Your task to perform on an android device: change alarm snooze length Image 0: 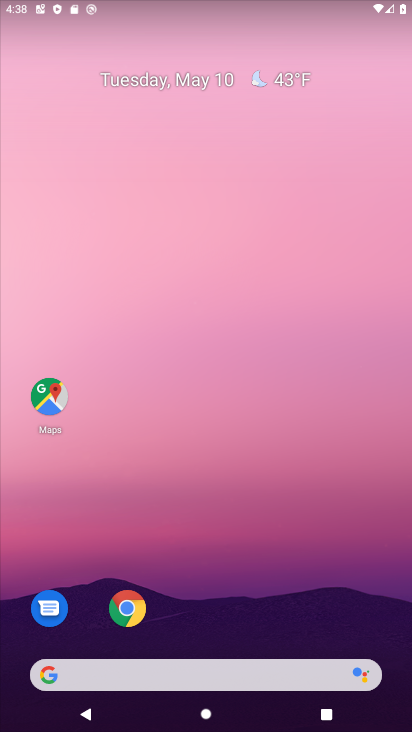
Step 0: drag from (297, 559) to (363, 50)
Your task to perform on an android device: change alarm snooze length Image 1: 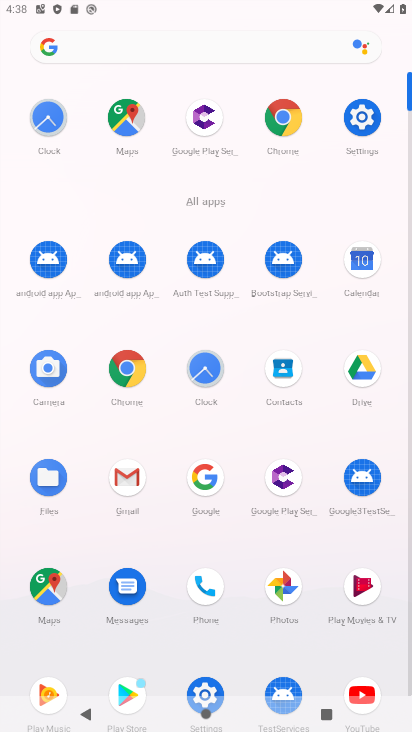
Step 1: click (204, 374)
Your task to perform on an android device: change alarm snooze length Image 2: 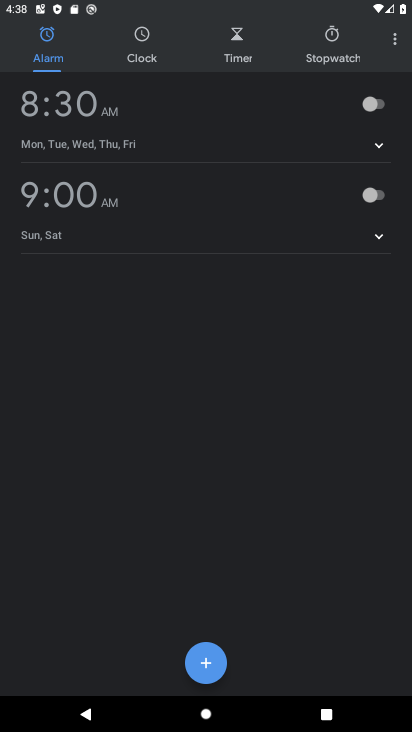
Step 2: click (404, 30)
Your task to perform on an android device: change alarm snooze length Image 3: 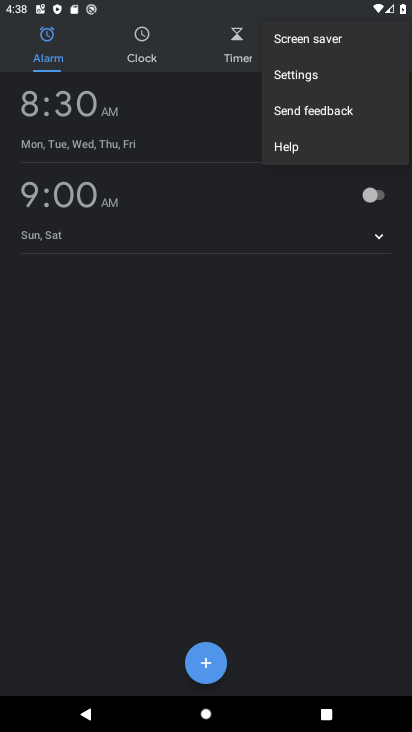
Step 3: click (303, 76)
Your task to perform on an android device: change alarm snooze length Image 4: 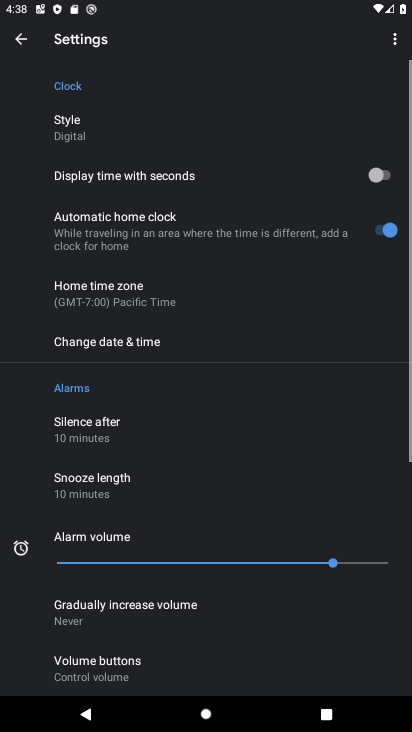
Step 4: drag from (152, 637) to (246, 163)
Your task to perform on an android device: change alarm snooze length Image 5: 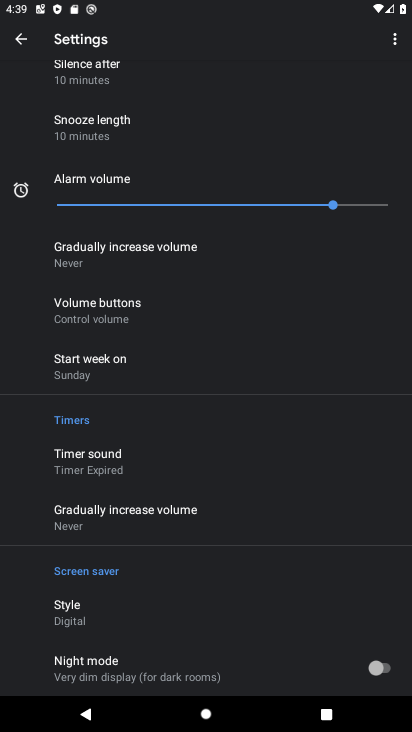
Step 5: click (85, 133)
Your task to perform on an android device: change alarm snooze length Image 6: 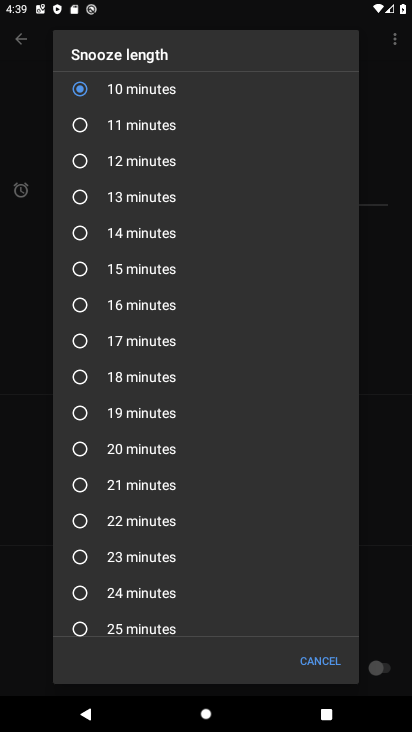
Step 6: click (109, 127)
Your task to perform on an android device: change alarm snooze length Image 7: 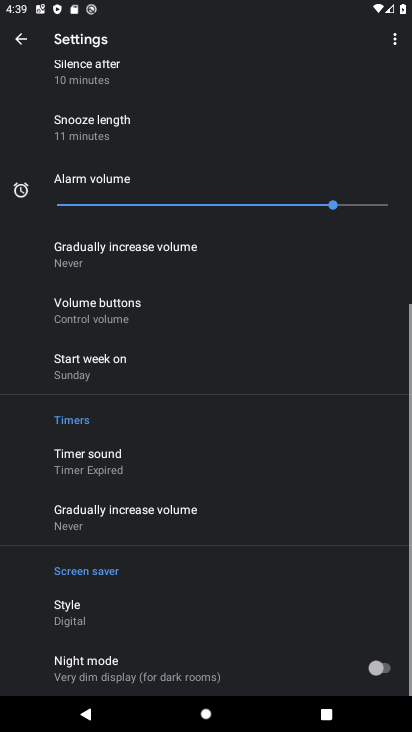
Step 7: task complete